Your task to perform on an android device: toggle javascript in the chrome app Image 0: 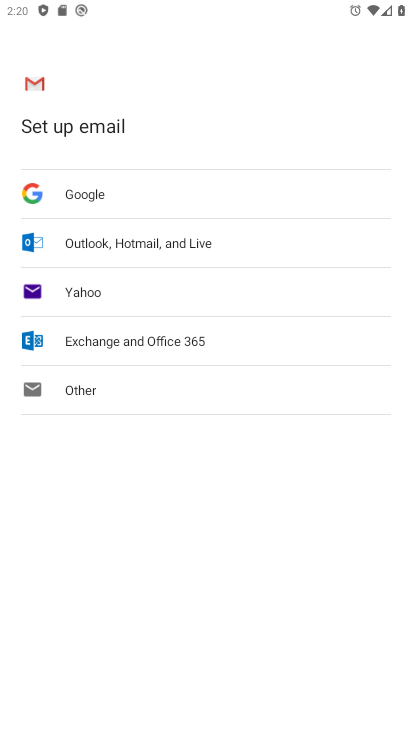
Step 0: press home button
Your task to perform on an android device: toggle javascript in the chrome app Image 1: 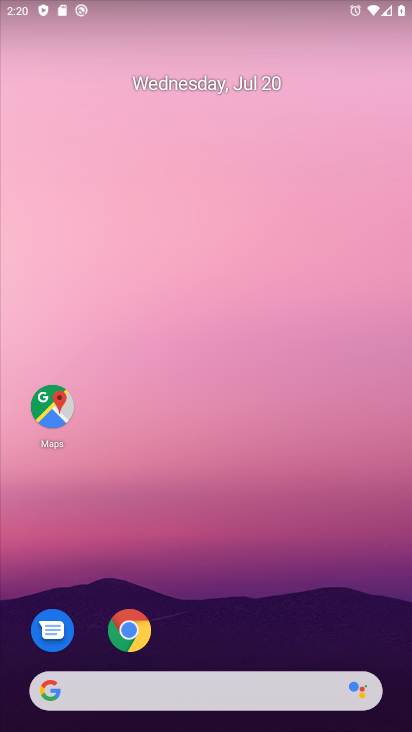
Step 1: click (127, 638)
Your task to perform on an android device: toggle javascript in the chrome app Image 2: 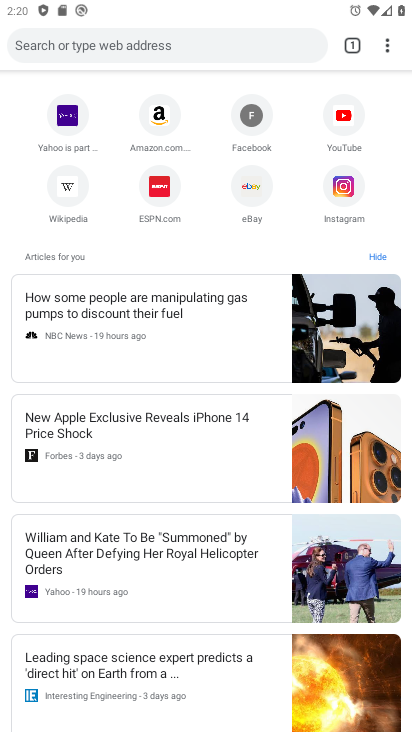
Step 2: click (384, 50)
Your task to perform on an android device: toggle javascript in the chrome app Image 3: 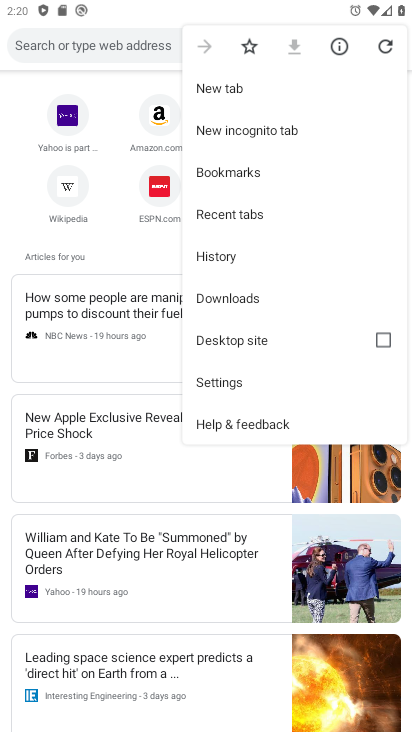
Step 3: click (239, 378)
Your task to perform on an android device: toggle javascript in the chrome app Image 4: 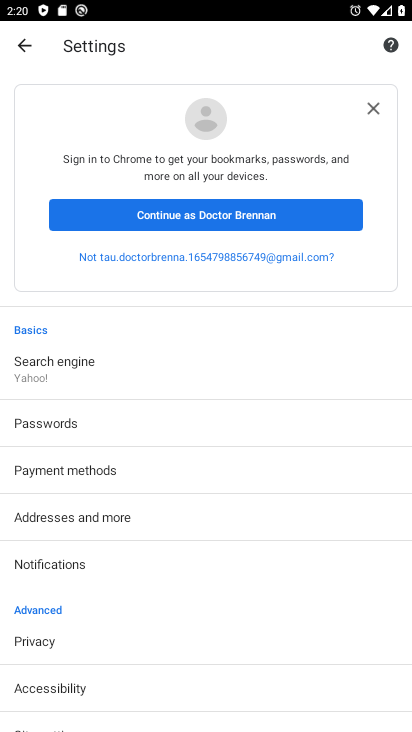
Step 4: drag from (32, 481) to (193, 221)
Your task to perform on an android device: toggle javascript in the chrome app Image 5: 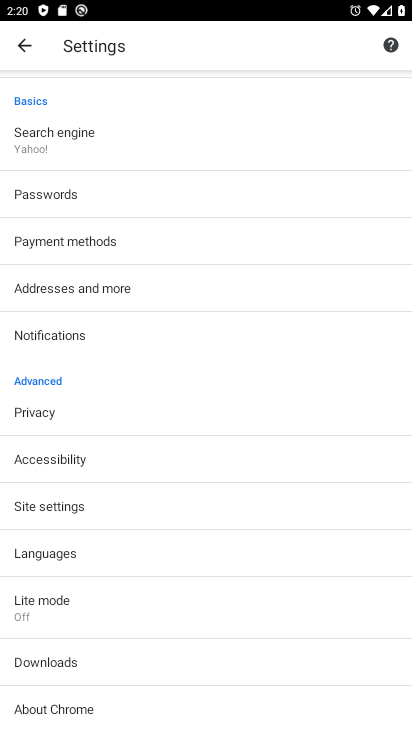
Step 5: click (54, 504)
Your task to perform on an android device: toggle javascript in the chrome app Image 6: 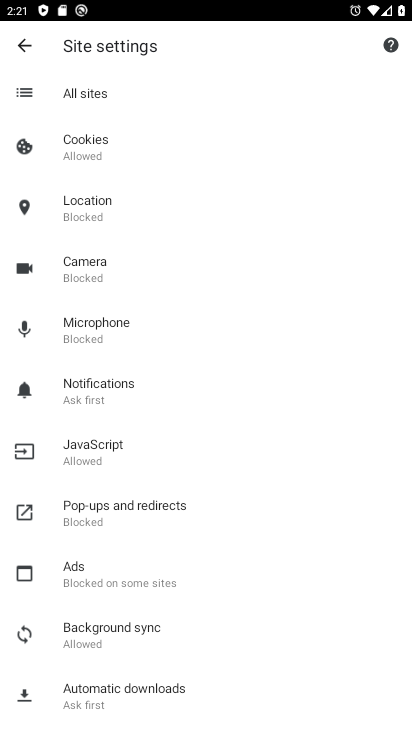
Step 6: click (111, 451)
Your task to perform on an android device: toggle javascript in the chrome app Image 7: 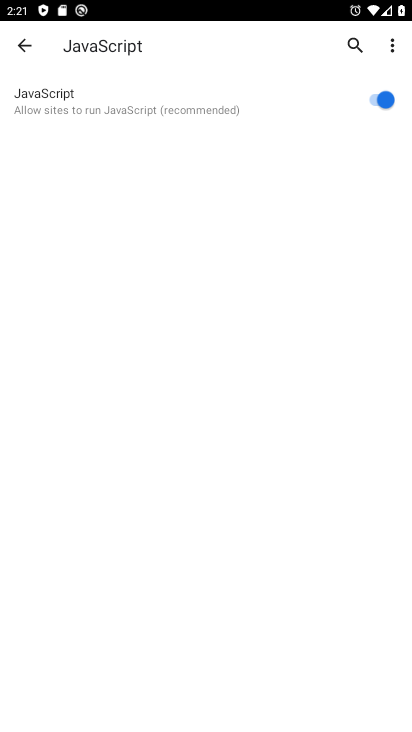
Step 7: click (389, 97)
Your task to perform on an android device: toggle javascript in the chrome app Image 8: 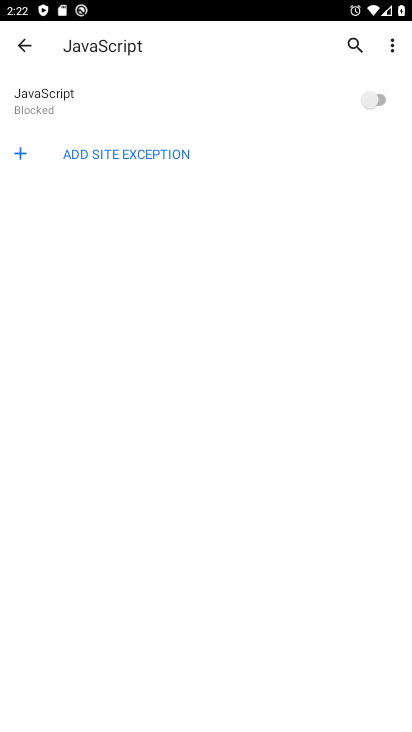
Step 8: task complete